Your task to perform on an android device: clear history in the chrome app Image 0: 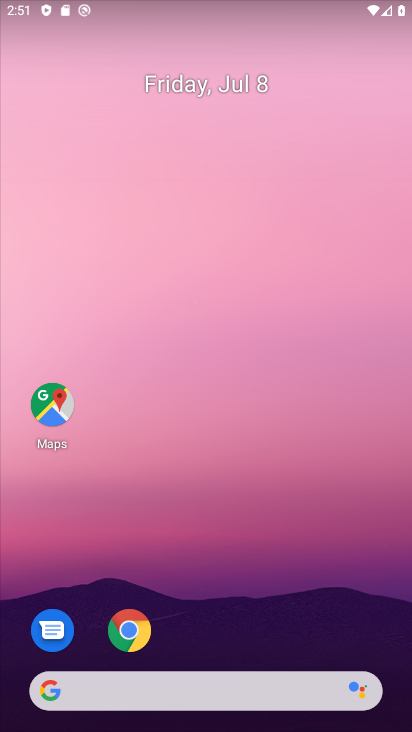
Step 0: drag from (203, 349) to (126, 79)
Your task to perform on an android device: clear history in the chrome app Image 1: 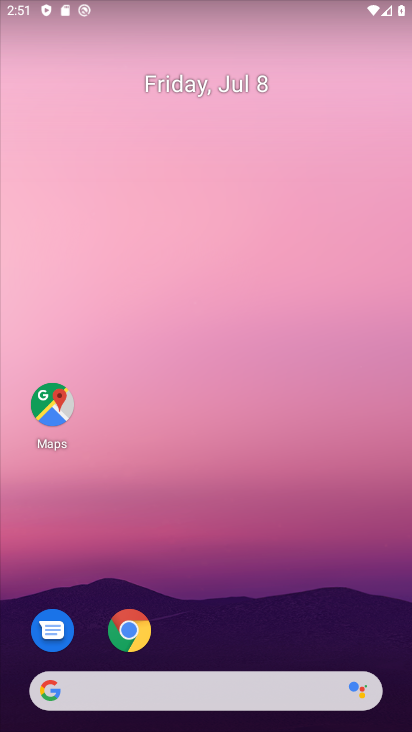
Step 1: drag from (266, 614) to (111, 13)
Your task to perform on an android device: clear history in the chrome app Image 2: 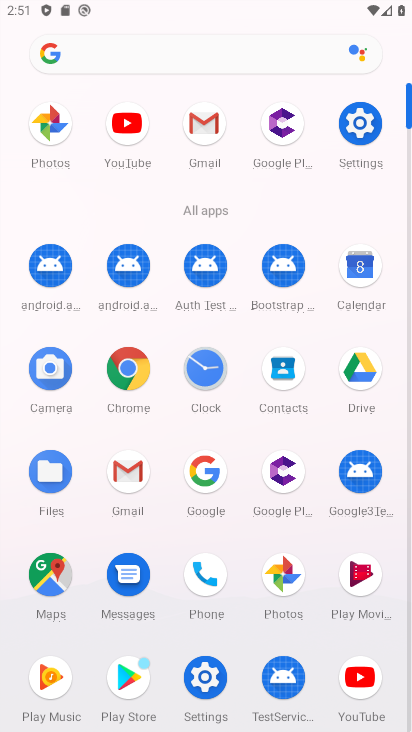
Step 2: click (118, 365)
Your task to perform on an android device: clear history in the chrome app Image 3: 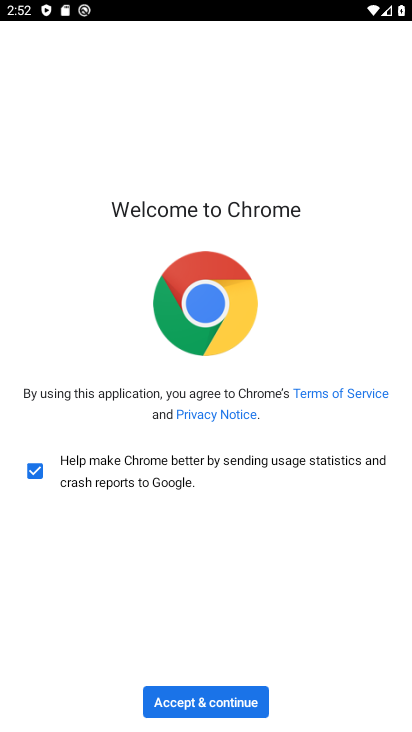
Step 3: click (252, 707)
Your task to perform on an android device: clear history in the chrome app Image 4: 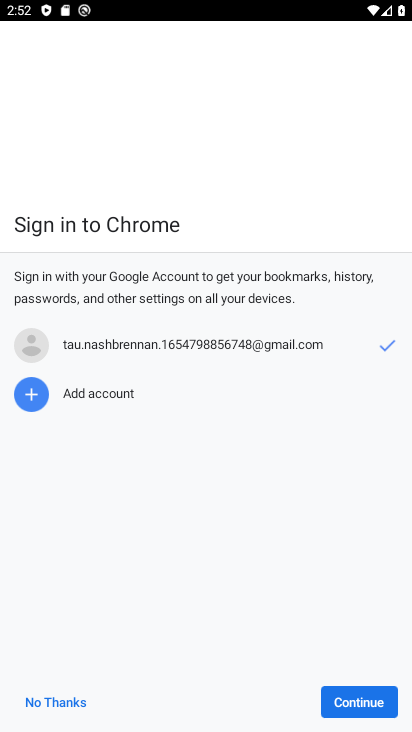
Step 4: click (333, 685)
Your task to perform on an android device: clear history in the chrome app Image 5: 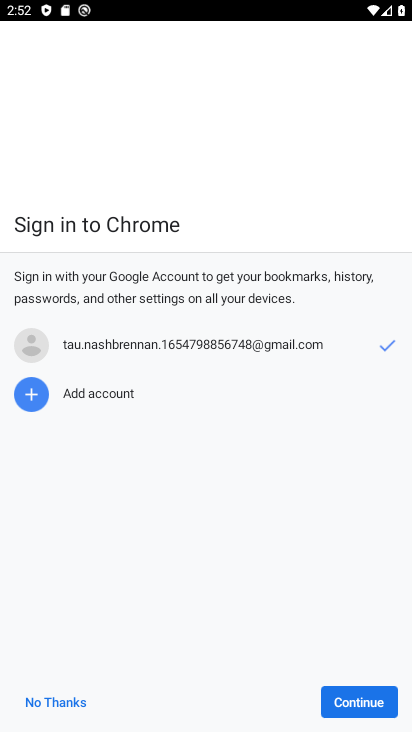
Step 5: click (347, 690)
Your task to perform on an android device: clear history in the chrome app Image 6: 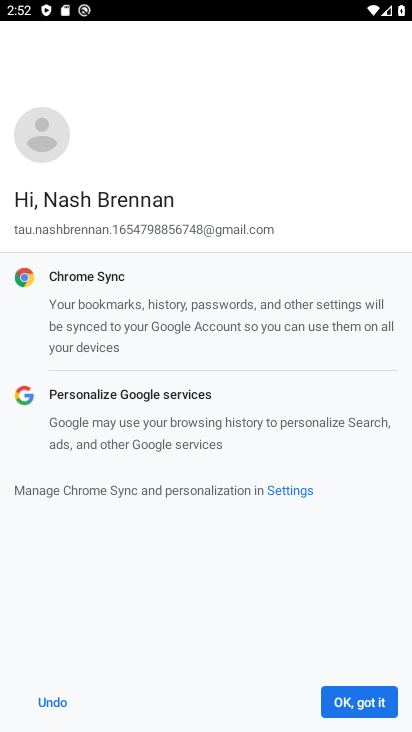
Step 6: click (349, 690)
Your task to perform on an android device: clear history in the chrome app Image 7: 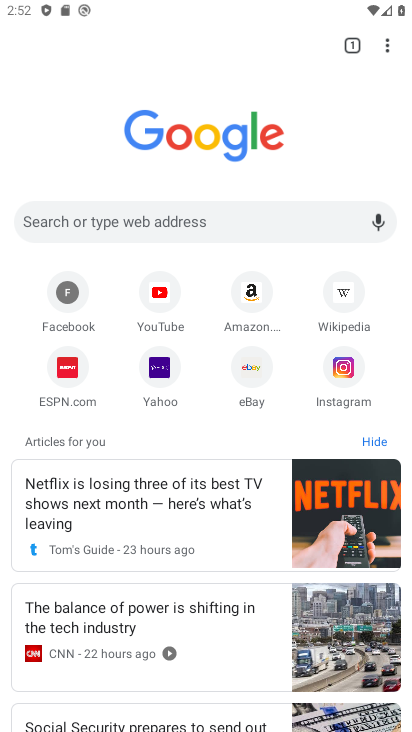
Step 7: drag from (385, 42) to (203, 257)
Your task to perform on an android device: clear history in the chrome app Image 8: 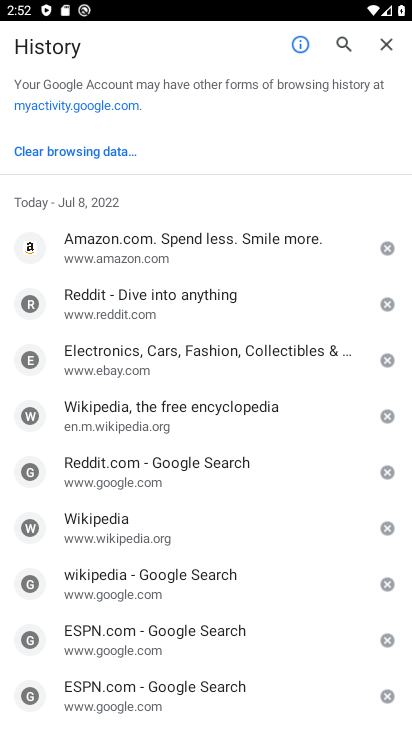
Step 8: click (384, 239)
Your task to perform on an android device: clear history in the chrome app Image 9: 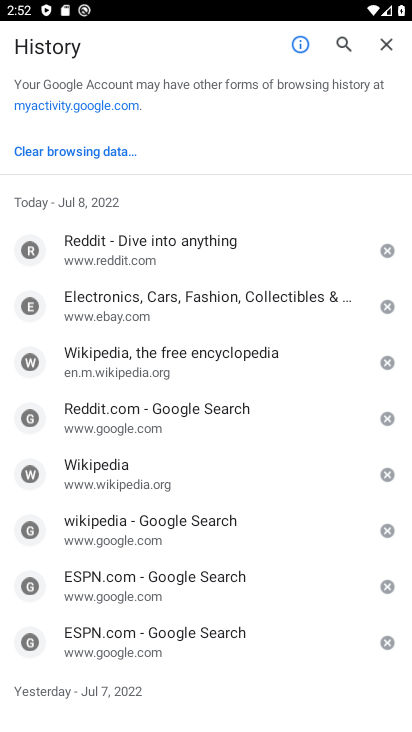
Step 9: click (384, 239)
Your task to perform on an android device: clear history in the chrome app Image 10: 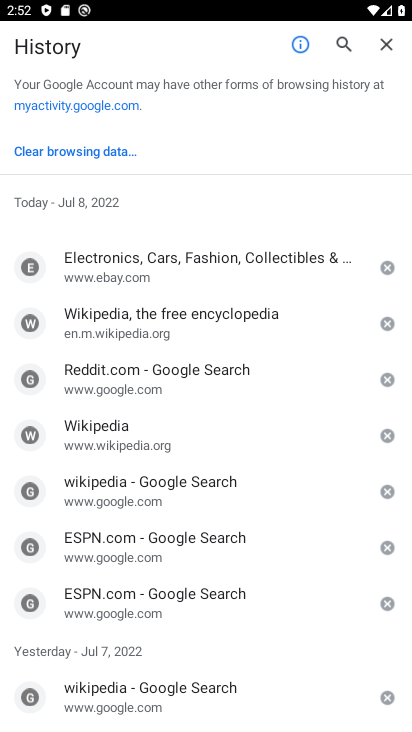
Step 10: click (384, 239)
Your task to perform on an android device: clear history in the chrome app Image 11: 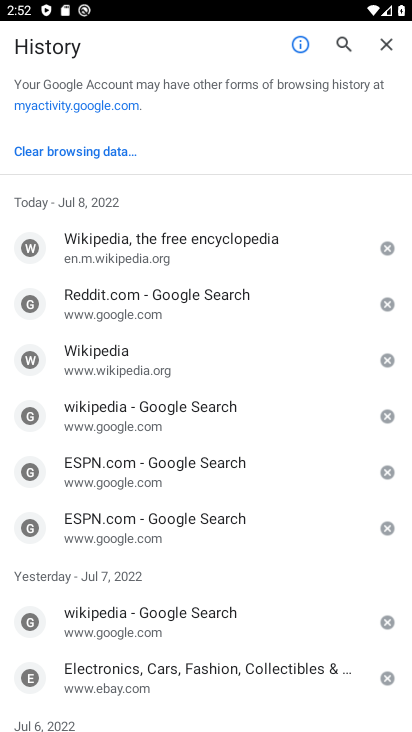
Step 11: click (385, 249)
Your task to perform on an android device: clear history in the chrome app Image 12: 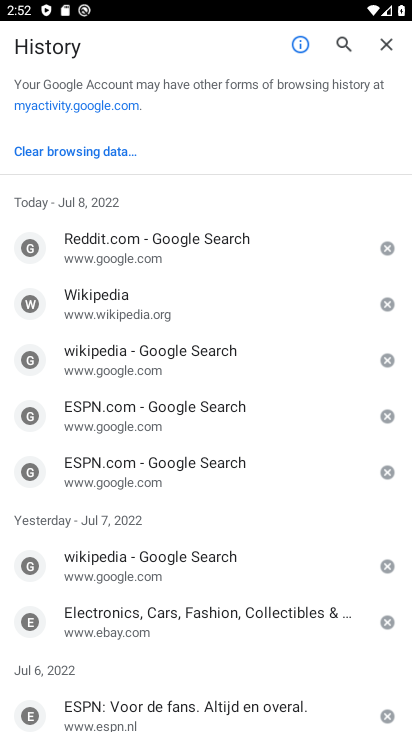
Step 12: click (385, 249)
Your task to perform on an android device: clear history in the chrome app Image 13: 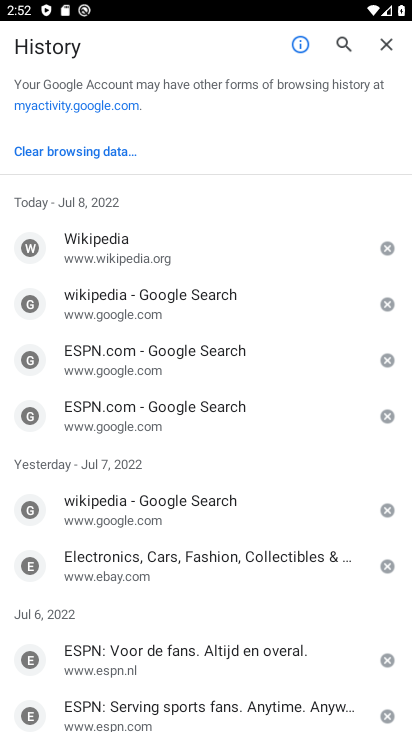
Step 13: click (385, 249)
Your task to perform on an android device: clear history in the chrome app Image 14: 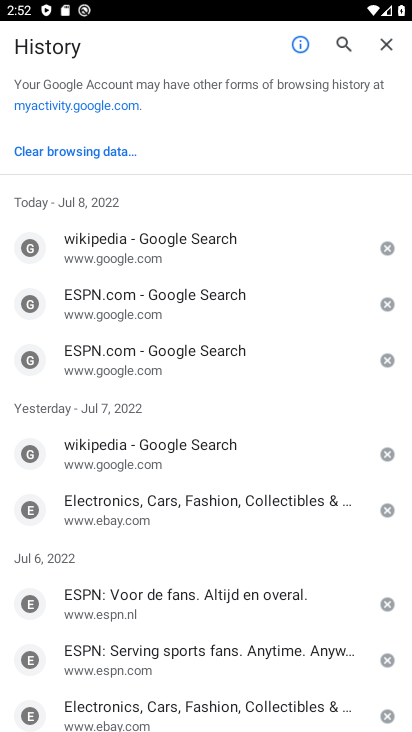
Step 14: click (385, 249)
Your task to perform on an android device: clear history in the chrome app Image 15: 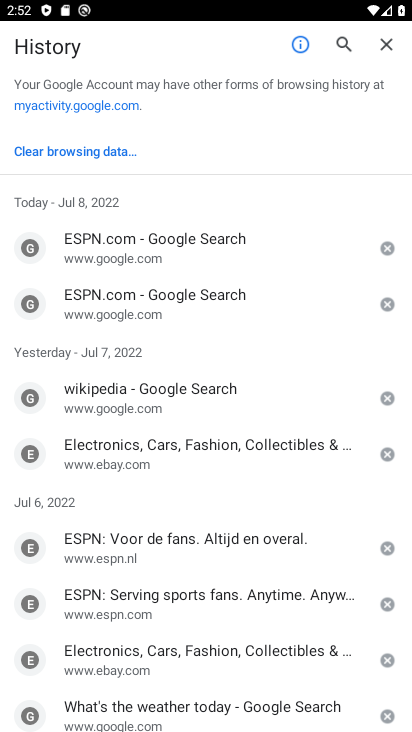
Step 15: click (385, 249)
Your task to perform on an android device: clear history in the chrome app Image 16: 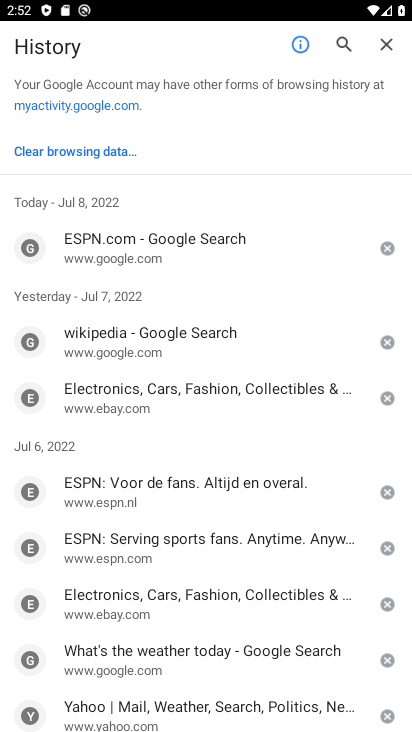
Step 16: click (385, 249)
Your task to perform on an android device: clear history in the chrome app Image 17: 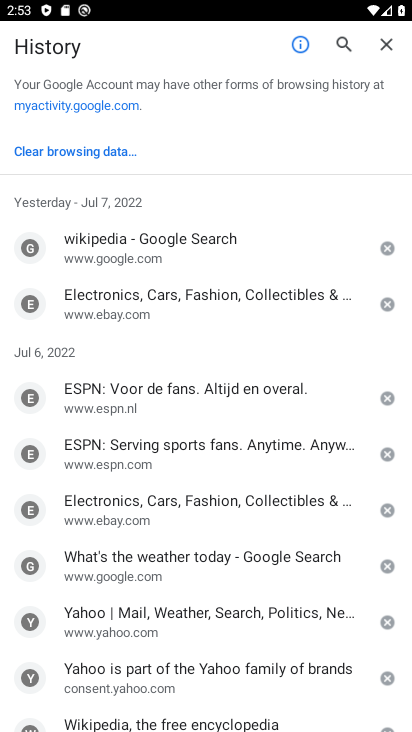
Step 17: click (384, 248)
Your task to perform on an android device: clear history in the chrome app Image 18: 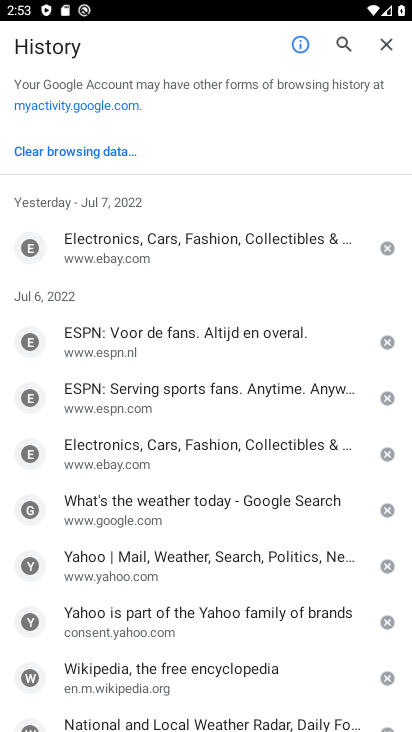
Step 18: click (384, 248)
Your task to perform on an android device: clear history in the chrome app Image 19: 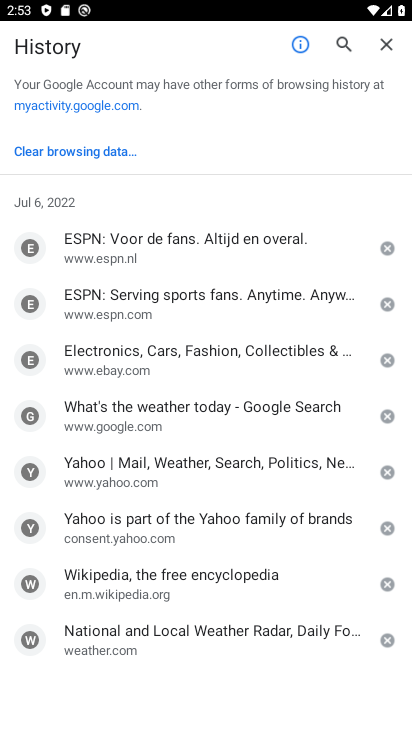
Step 19: click (384, 248)
Your task to perform on an android device: clear history in the chrome app Image 20: 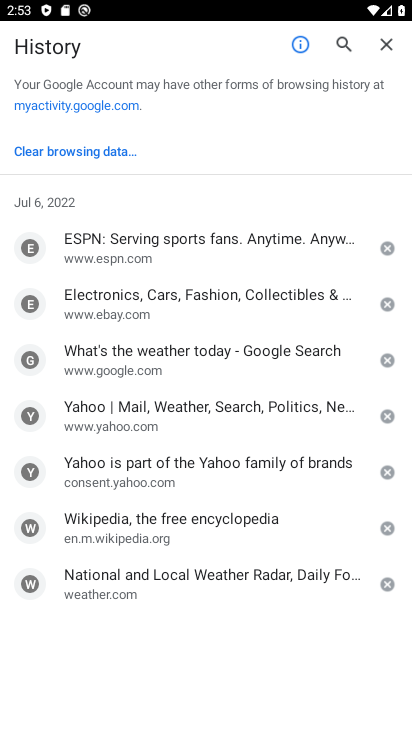
Step 20: click (384, 248)
Your task to perform on an android device: clear history in the chrome app Image 21: 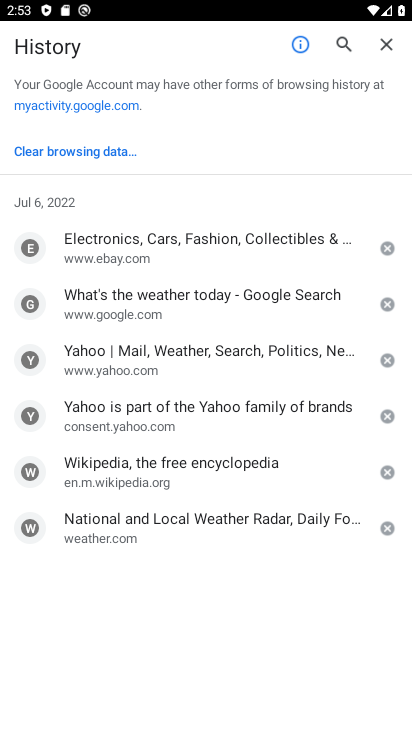
Step 21: click (384, 248)
Your task to perform on an android device: clear history in the chrome app Image 22: 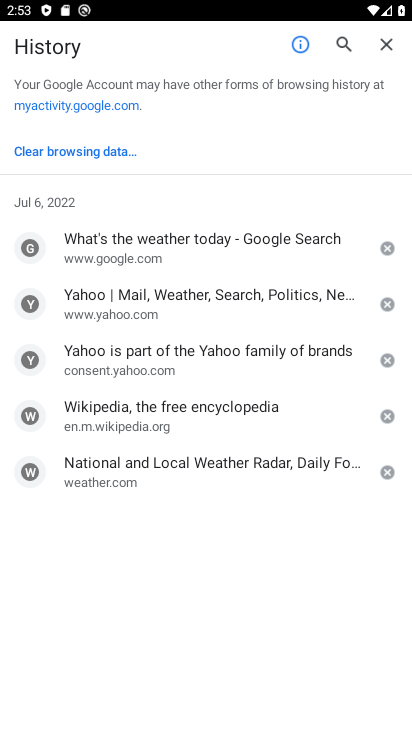
Step 22: click (384, 248)
Your task to perform on an android device: clear history in the chrome app Image 23: 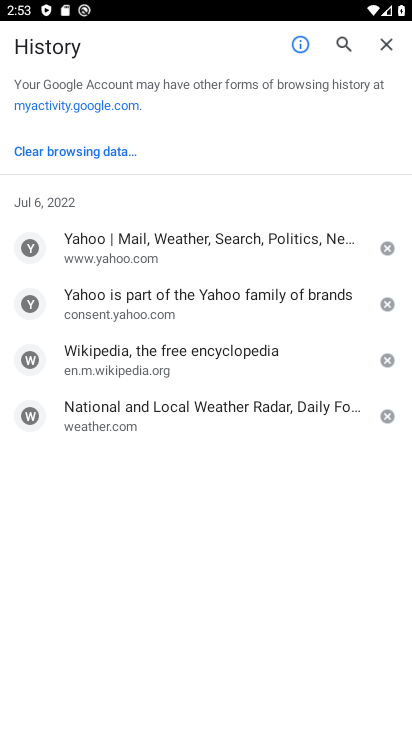
Step 23: click (384, 248)
Your task to perform on an android device: clear history in the chrome app Image 24: 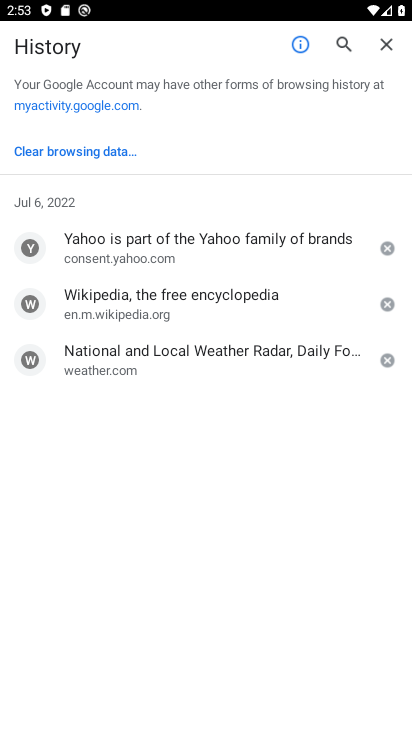
Step 24: click (384, 248)
Your task to perform on an android device: clear history in the chrome app Image 25: 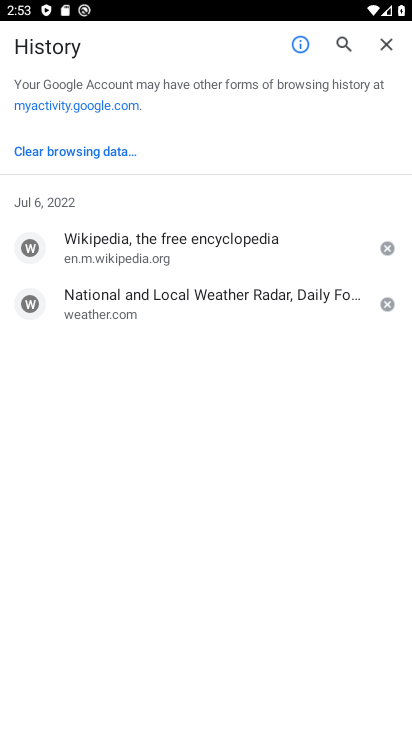
Step 25: click (384, 248)
Your task to perform on an android device: clear history in the chrome app Image 26: 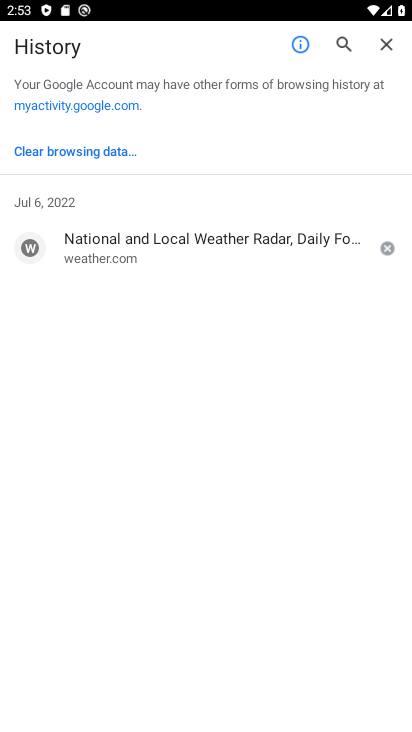
Step 26: click (384, 248)
Your task to perform on an android device: clear history in the chrome app Image 27: 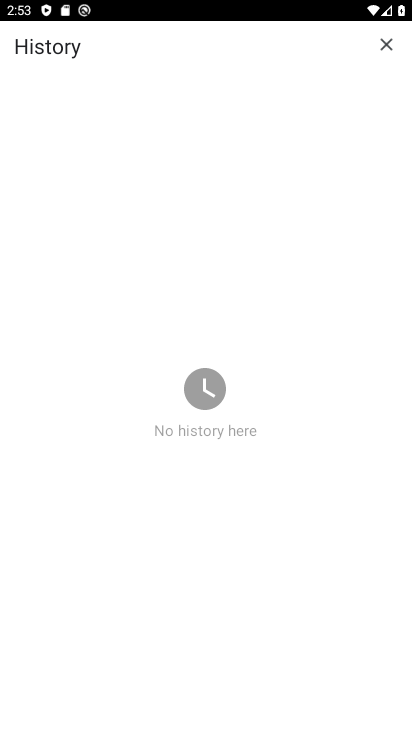
Step 27: task complete